Your task to perform on an android device: turn vacation reply on in the gmail app Image 0: 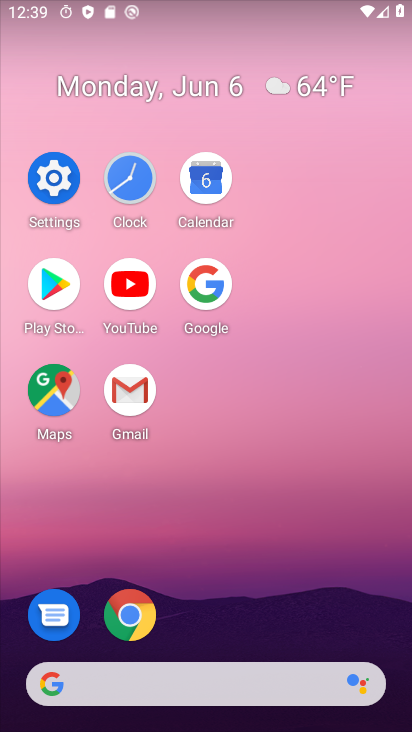
Step 0: click (149, 389)
Your task to perform on an android device: turn vacation reply on in the gmail app Image 1: 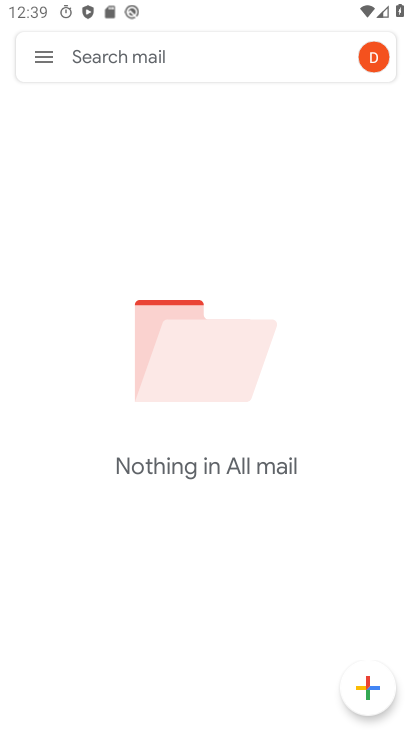
Step 1: click (47, 72)
Your task to perform on an android device: turn vacation reply on in the gmail app Image 2: 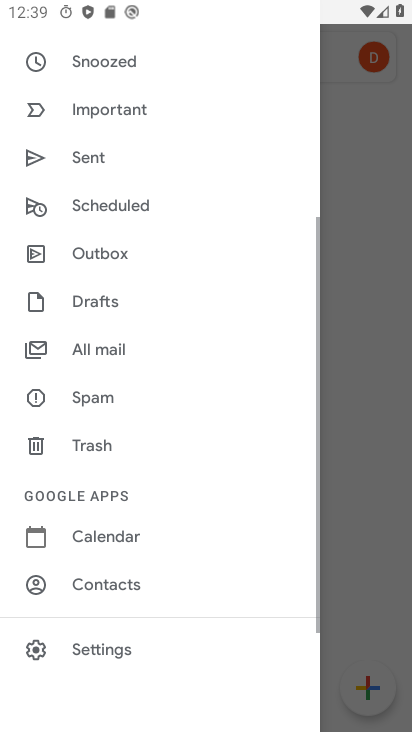
Step 2: click (155, 666)
Your task to perform on an android device: turn vacation reply on in the gmail app Image 3: 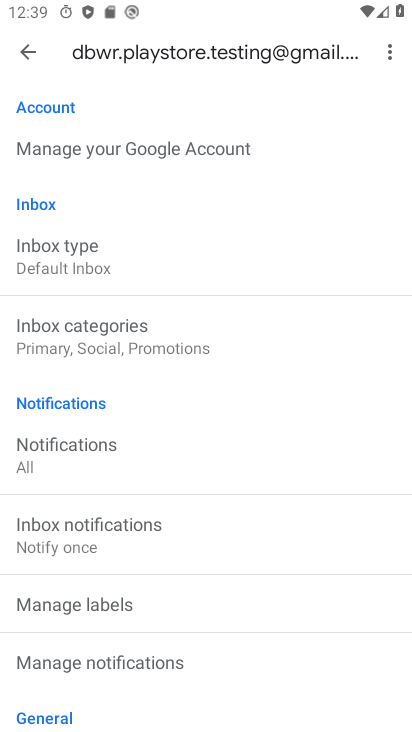
Step 3: drag from (171, 595) to (180, 171)
Your task to perform on an android device: turn vacation reply on in the gmail app Image 4: 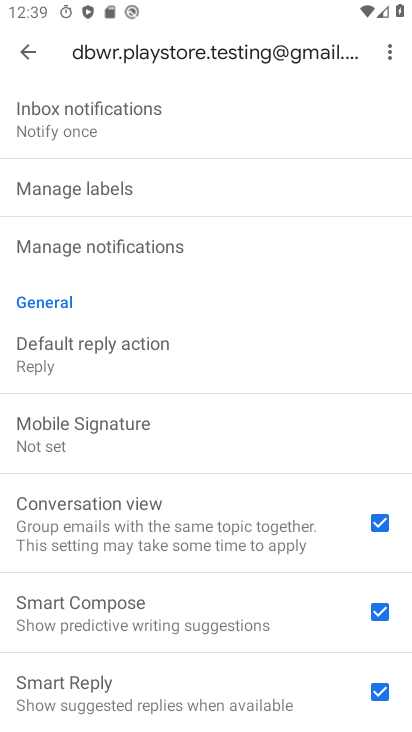
Step 4: drag from (209, 583) to (220, 228)
Your task to perform on an android device: turn vacation reply on in the gmail app Image 5: 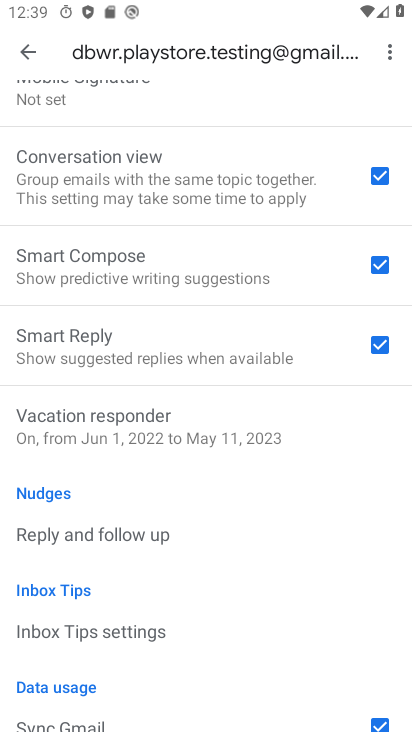
Step 5: drag from (208, 629) to (237, 234)
Your task to perform on an android device: turn vacation reply on in the gmail app Image 6: 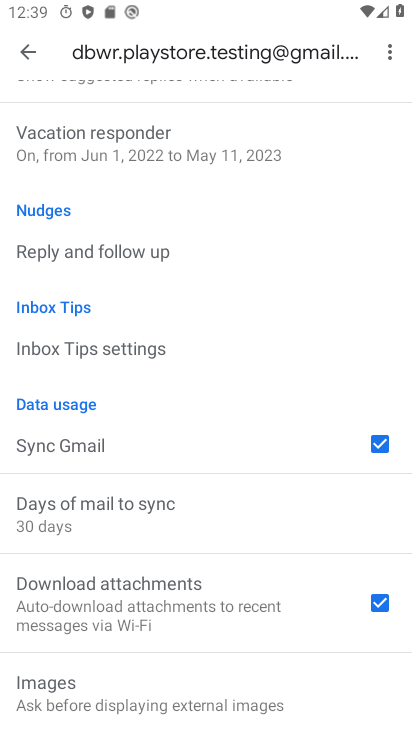
Step 6: click (236, 160)
Your task to perform on an android device: turn vacation reply on in the gmail app Image 7: 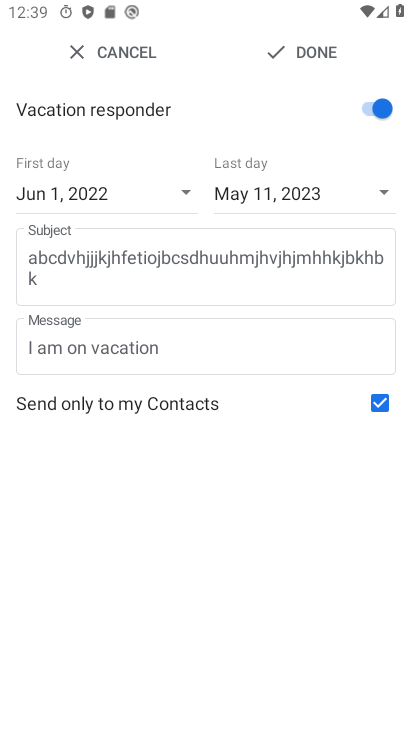
Step 7: click (338, 58)
Your task to perform on an android device: turn vacation reply on in the gmail app Image 8: 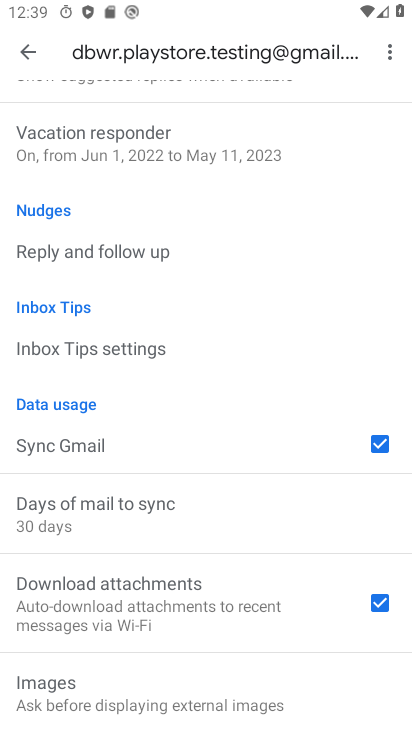
Step 8: task complete